Your task to perform on an android device: show emergency info Image 0: 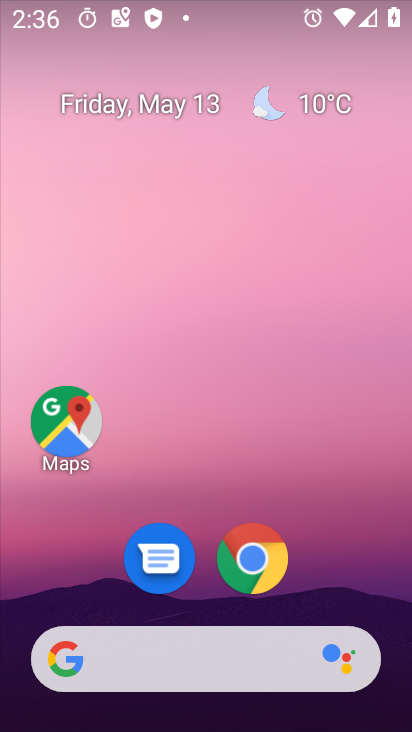
Step 0: drag from (200, 603) to (204, 238)
Your task to perform on an android device: show emergency info Image 1: 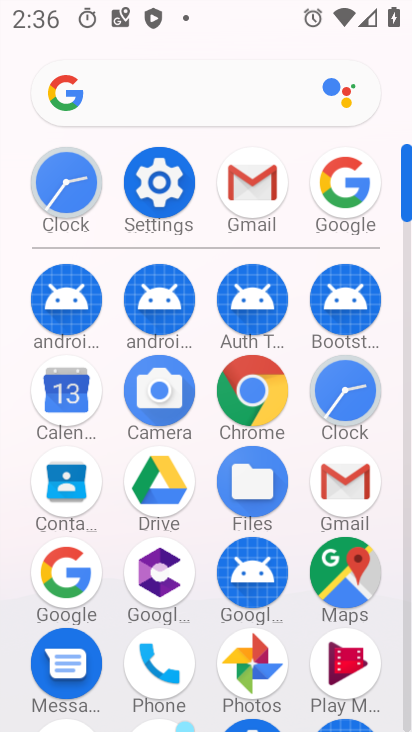
Step 1: click (173, 170)
Your task to perform on an android device: show emergency info Image 2: 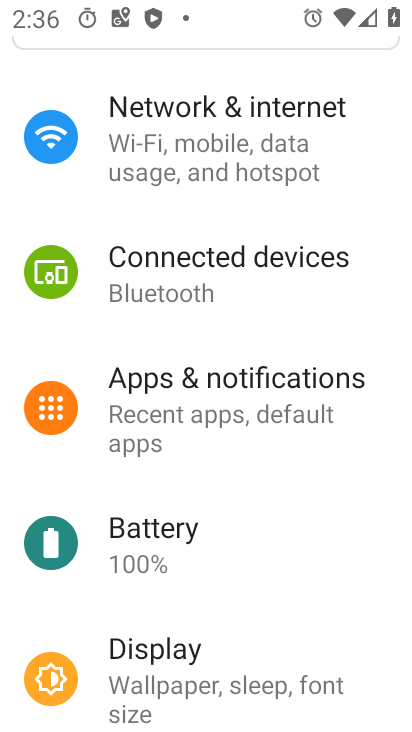
Step 2: drag from (210, 593) to (226, 306)
Your task to perform on an android device: show emergency info Image 3: 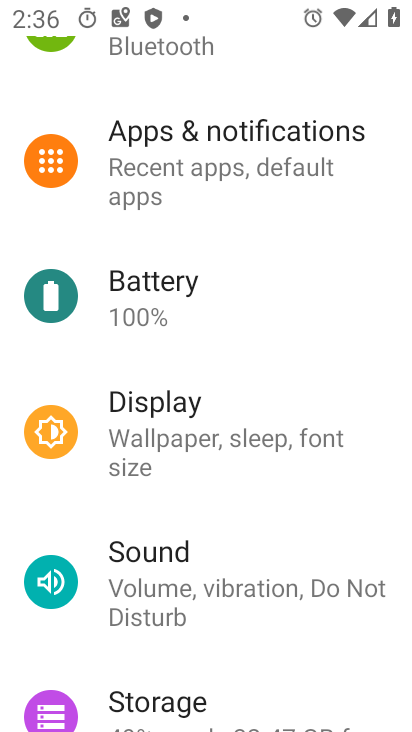
Step 3: drag from (196, 575) to (225, 311)
Your task to perform on an android device: show emergency info Image 4: 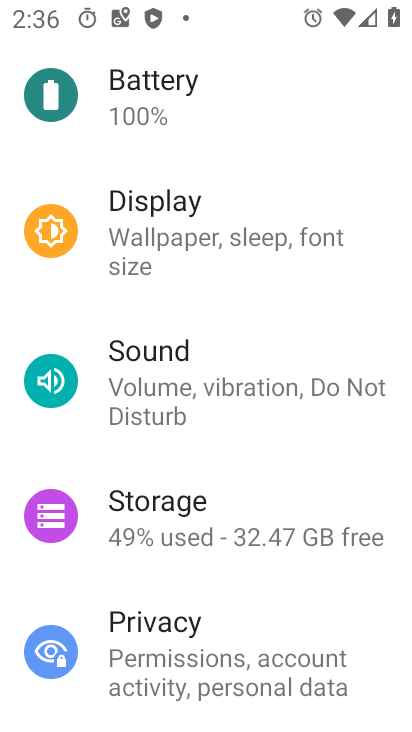
Step 4: drag from (203, 553) to (281, 307)
Your task to perform on an android device: show emergency info Image 5: 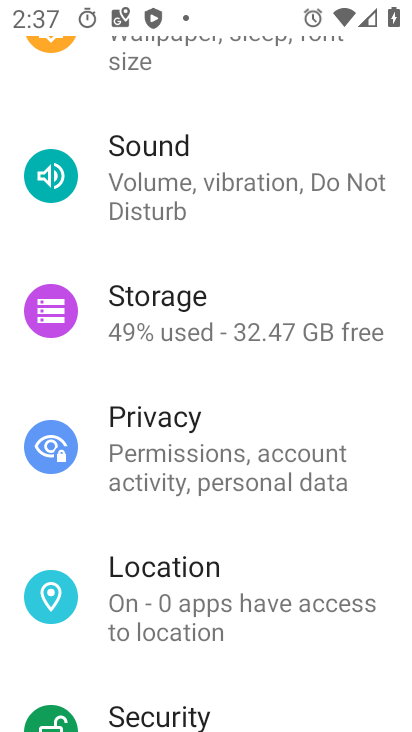
Step 5: drag from (192, 640) to (267, 315)
Your task to perform on an android device: show emergency info Image 6: 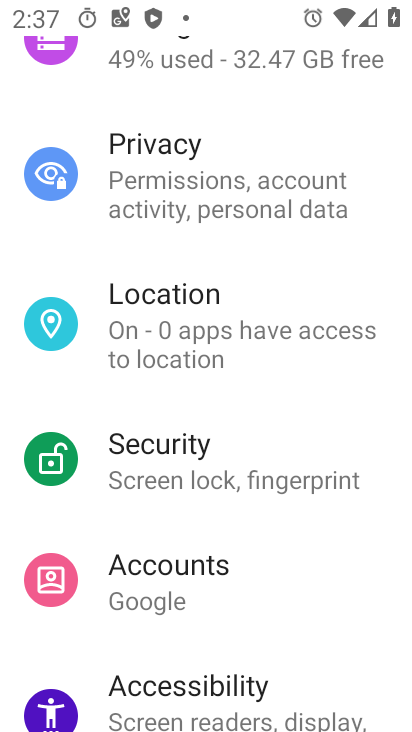
Step 6: drag from (279, 628) to (305, 225)
Your task to perform on an android device: show emergency info Image 7: 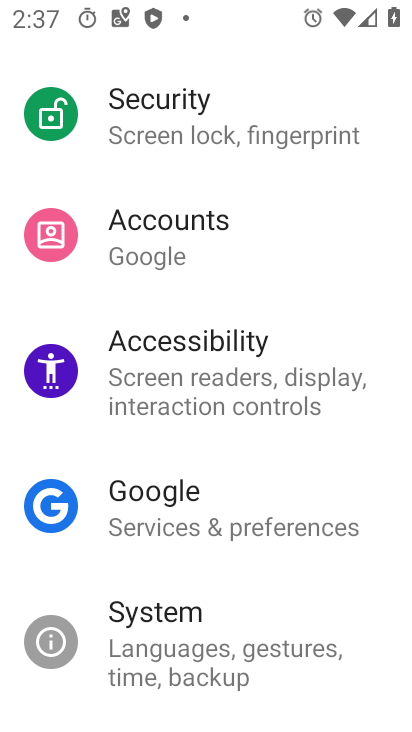
Step 7: drag from (294, 541) to (326, 295)
Your task to perform on an android device: show emergency info Image 8: 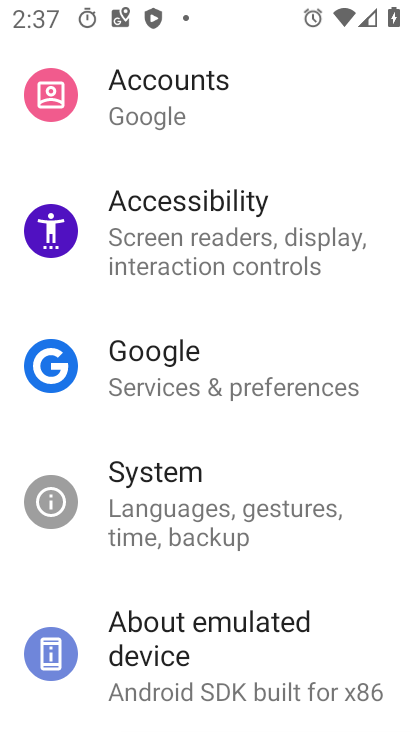
Step 8: drag from (283, 386) to (284, 327)
Your task to perform on an android device: show emergency info Image 9: 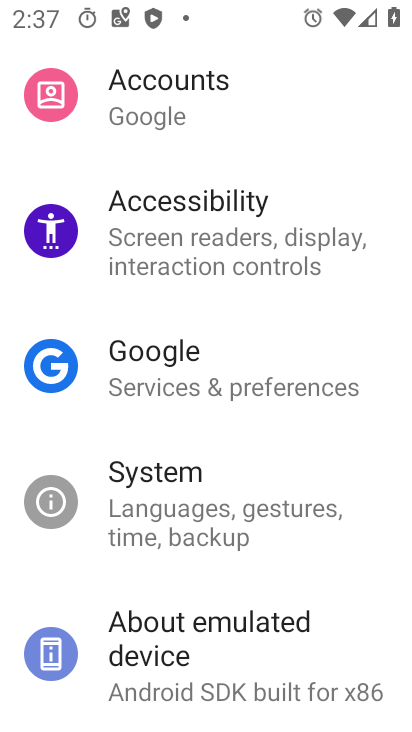
Step 9: drag from (223, 612) to (229, 401)
Your task to perform on an android device: show emergency info Image 10: 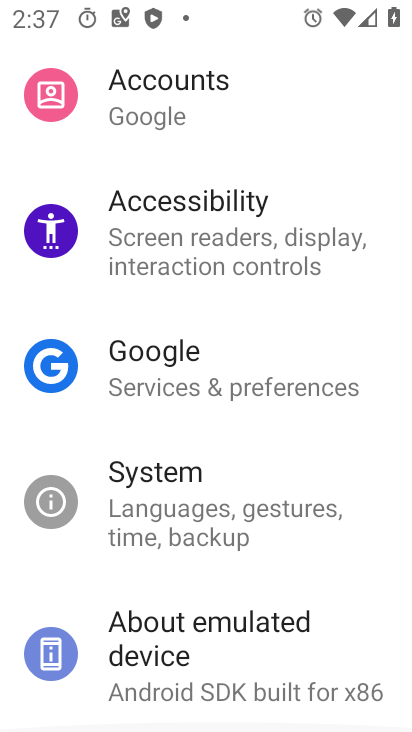
Step 10: click (223, 664)
Your task to perform on an android device: show emergency info Image 11: 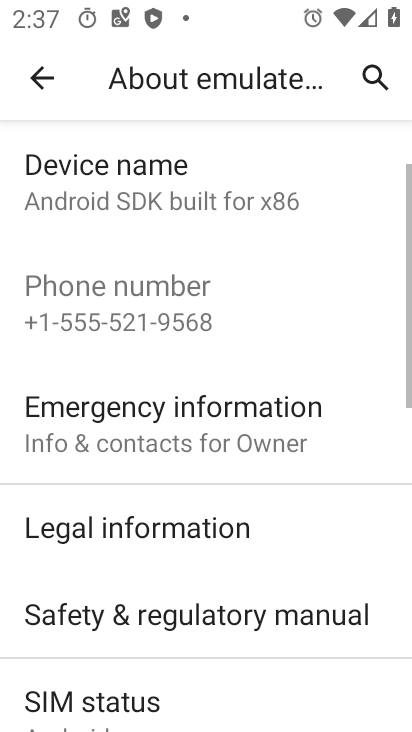
Step 11: click (194, 447)
Your task to perform on an android device: show emergency info Image 12: 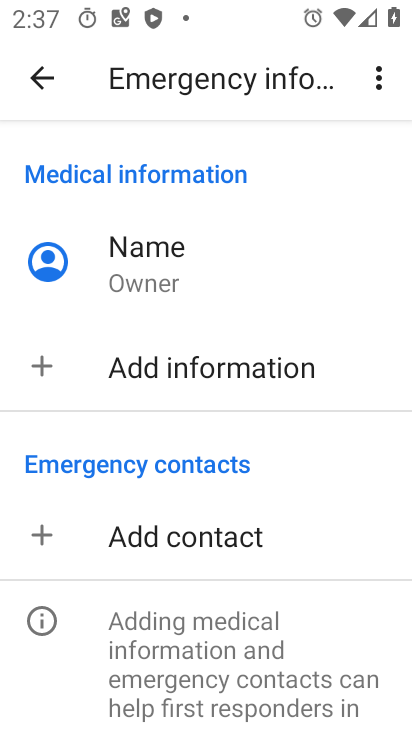
Step 12: task complete